Your task to perform on an android device: delete a single message in the gmail app Image 0: 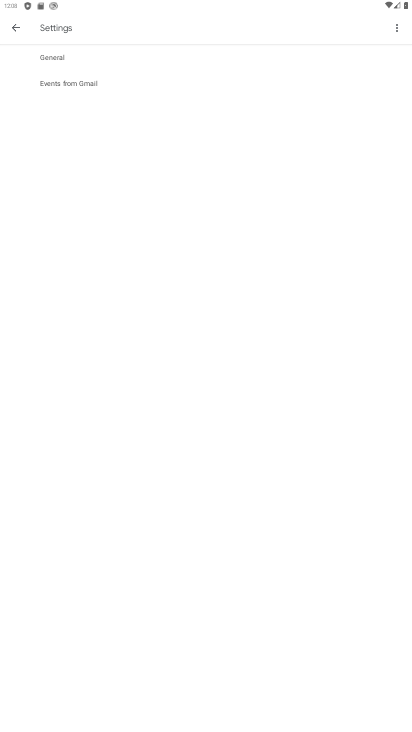
Step 0: press home button
Your task to perform on an android device: delete a single message in the gmail app Image 1: 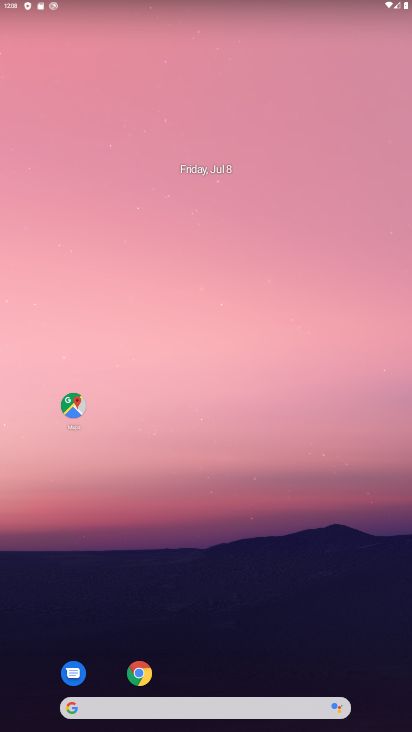
Step 1: drag from (209, 626) to (257, 116)
Your task to perform on an android device: delete a single message in the gmail app Image 2: 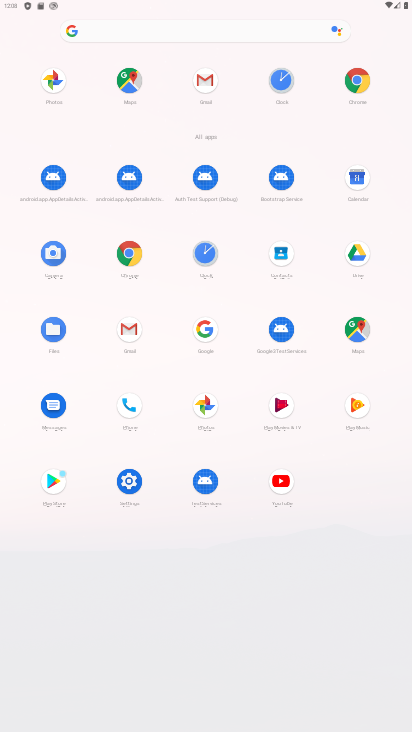
Step 2: click (206, 75)
Your task to perform on an android device: delete a single message in the gmail app Image 3: 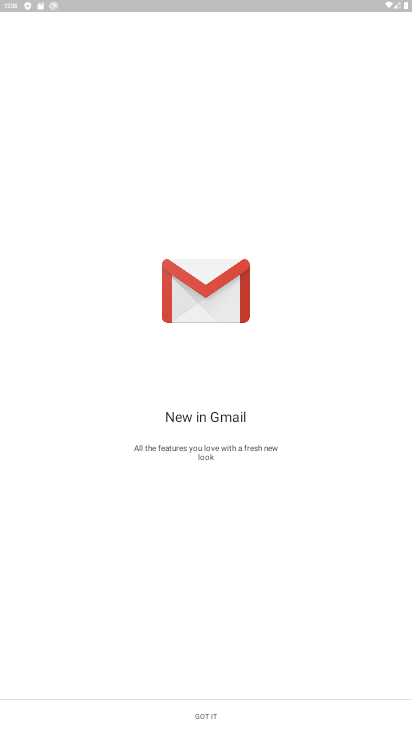
Step 3: click (207, 710)
Your task to perform on an android device: delete a single message in the gmail app Image 4: 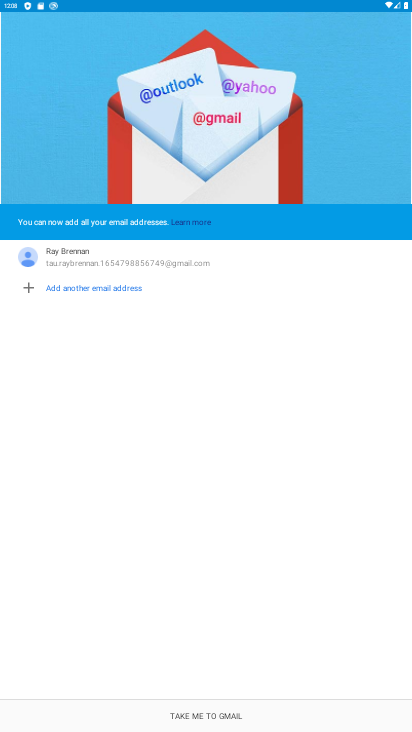
Step 4: click (214, 703)
Your task to perform on an android device: delete a single message in the gmail app Image 5: 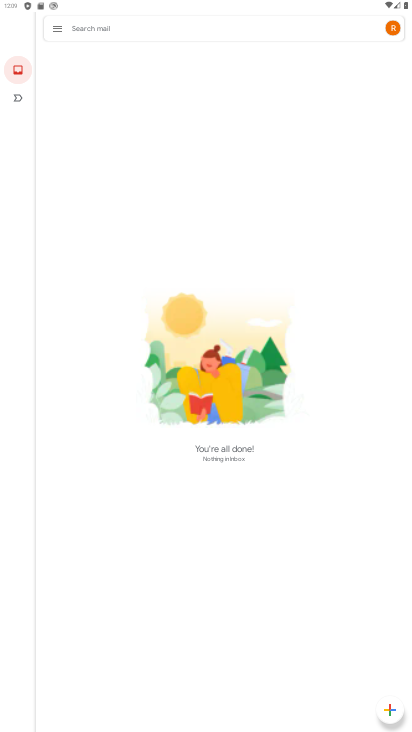
Step 5: click (56, 27)
Your task to perform on an android device: delete a single message in the gmail app Image 6: 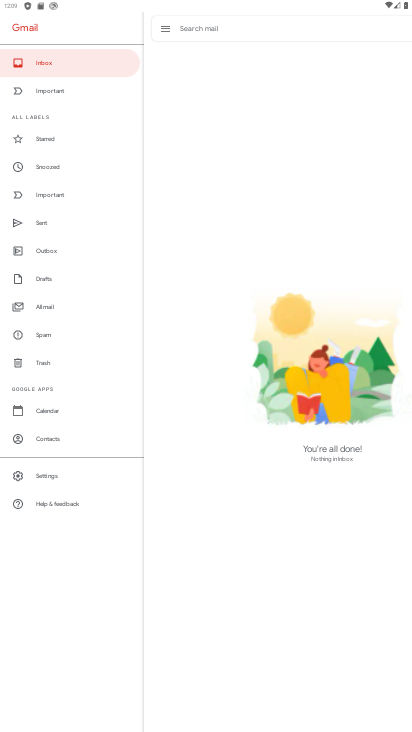
Step 6: click (52, 304)
Your task to perform on an android device: delete a single message in the gmail app Image 7: 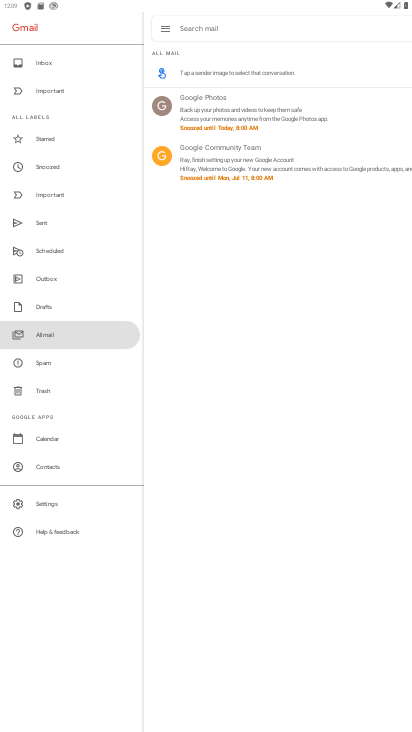
Step 7: click (262, 107)
Your task to perform on an android device: delete a single message in the gmail app Image 8: 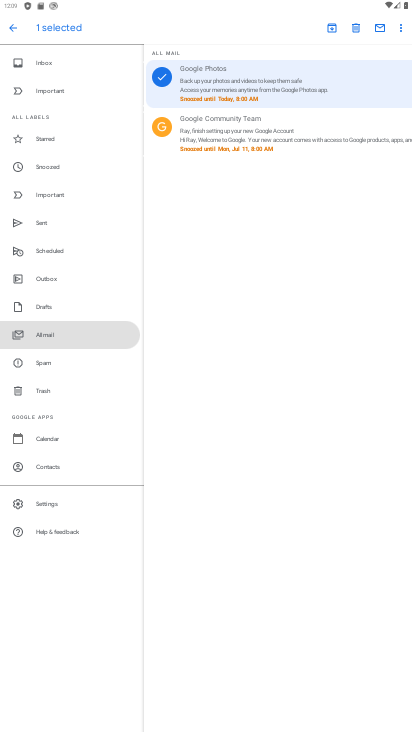
Step 8: click (353, 22)
Your task to perform on an android device: delete a single message in the gmail app Image 9: 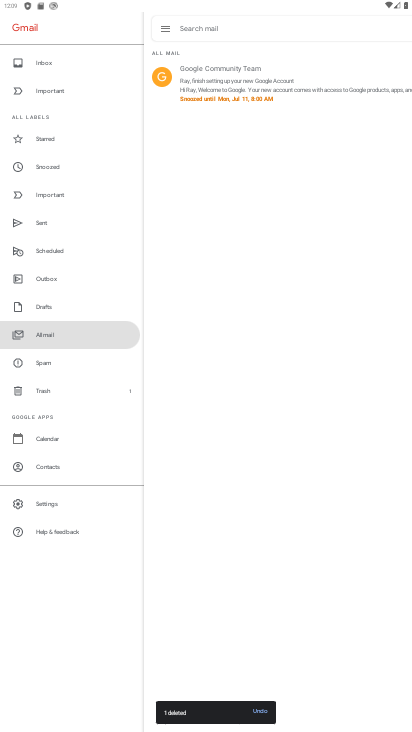
Step 9: task complete